Your task to perform on an android device: find which apps use the phone's location Image 0: 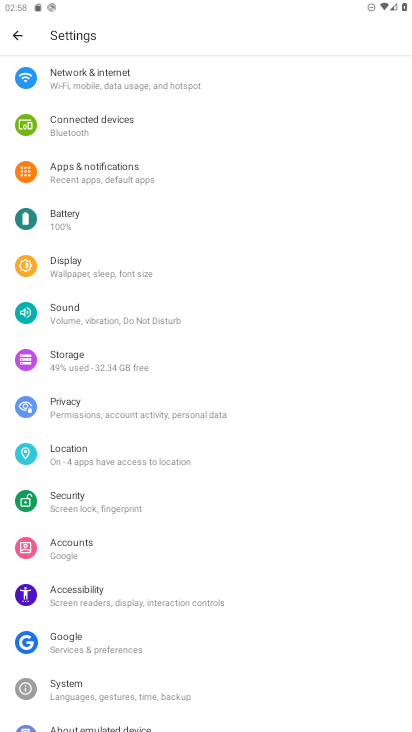
Step 0: press home button
Your task to perform on an android device: find which apps use the phone's location Image 1: 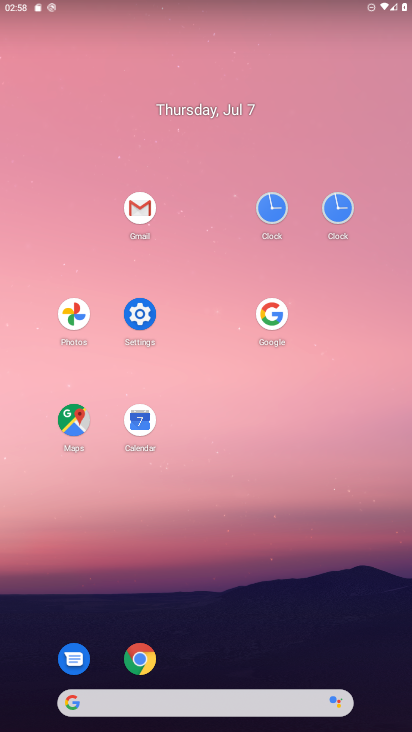
Step 1: click (129, 310)
Your task to perform on an android device: find which apps use the phone's location Image 2: 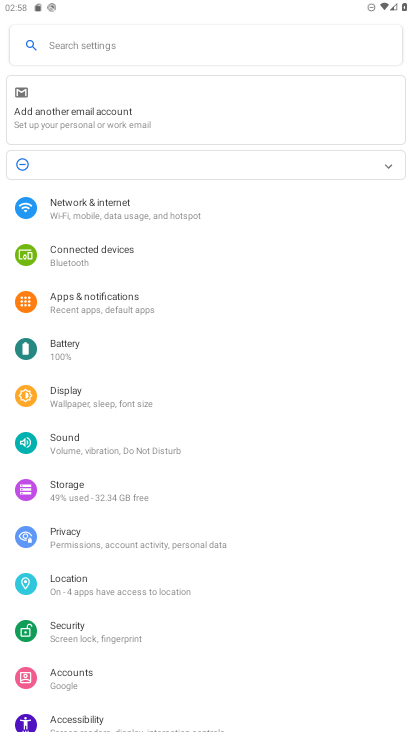
Step 2: click (168, 596)
Your task to perform on an android device: find which apps use the phone's location Image 3: 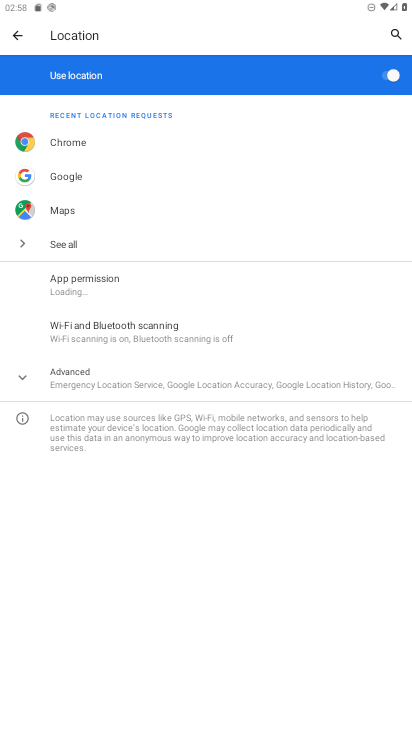
Step 3: task complete